Your task to perform on an android device: Open Google Chrome Image 0: 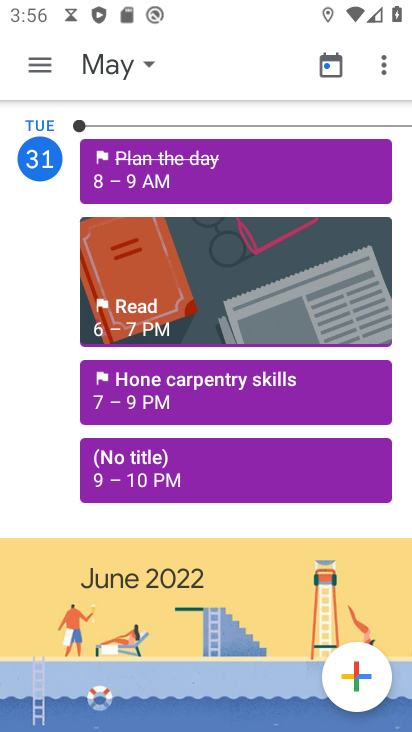
Step 0: press home button
Your task to perform on an android device: Open Google Chrome Image 1: 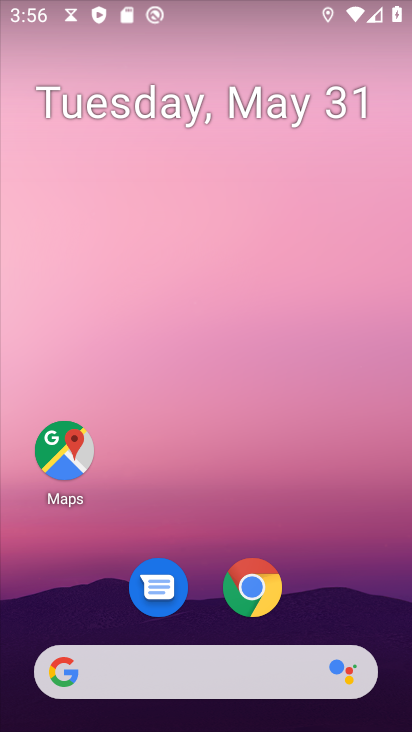
Step 1: click (259, 592)
Your task to perform on an android device: Open Google Chrome Image 2: 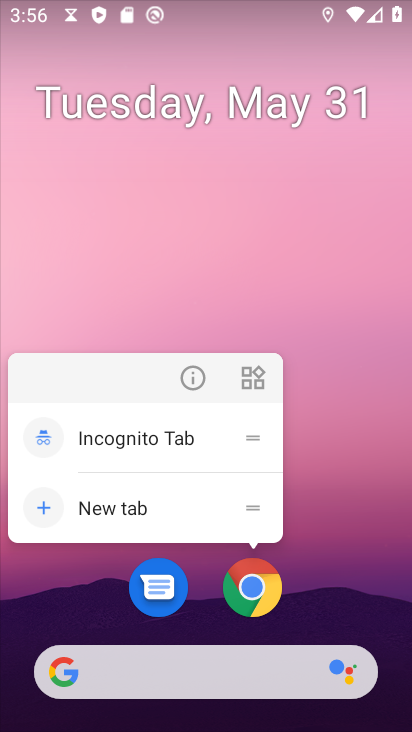
Step 2: click (265, 598)
Your task to perform on an android device: Open Google Chrome Image 3: 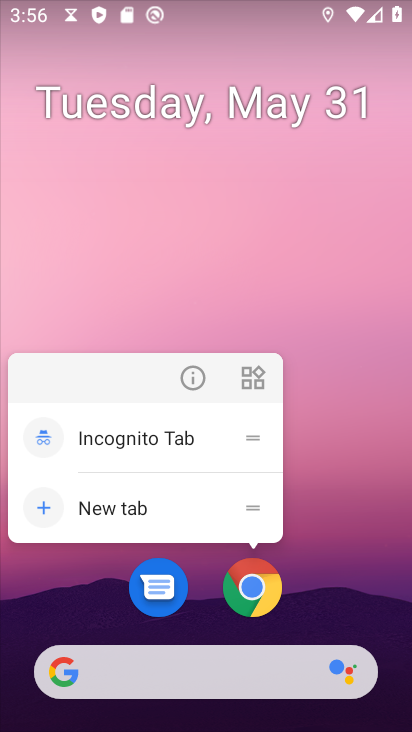
Step 3: click (264, 610)
Your task to perform on an android device: Open Google Chrome Image 4: 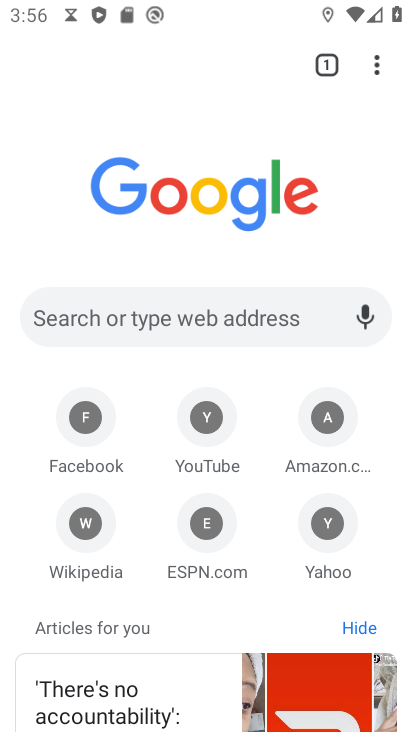
Step 4: task complete